Your task to perform on an android device: Open eBay Image 0: 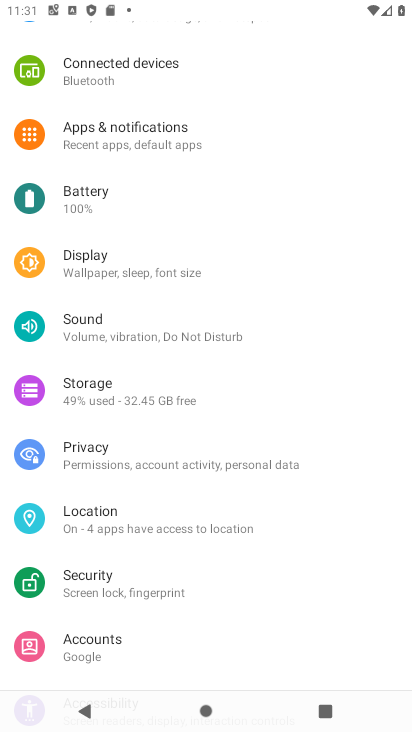
Step 0: press home button
Your task to perform on an android device: Open eBay Image 1: 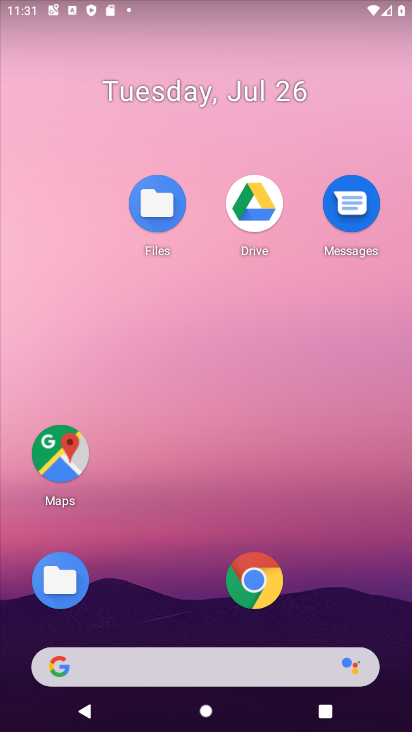
Step 1: click (175, 671)
Your task to perform on an android device: Open eBay Image 2: 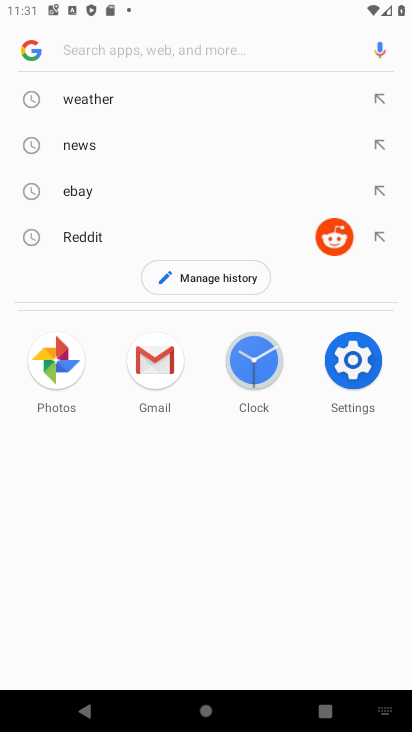
Step 2: click (97, 203)
Your task to perform on an android device: Open eBay Image 3: 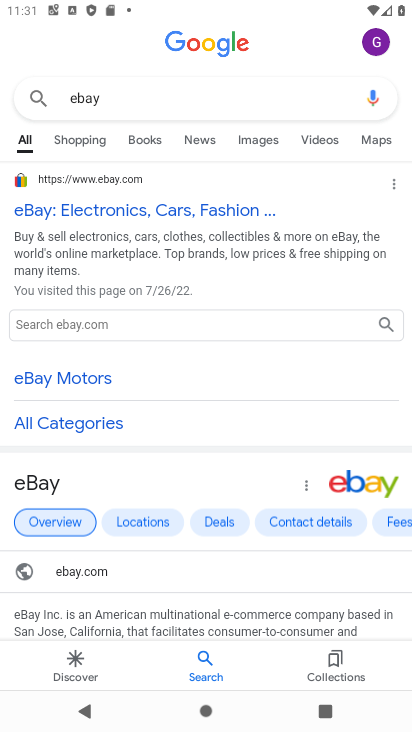
Step 3: click (86, 478)
Your task to perform on an android device: Open eBay Image 4: 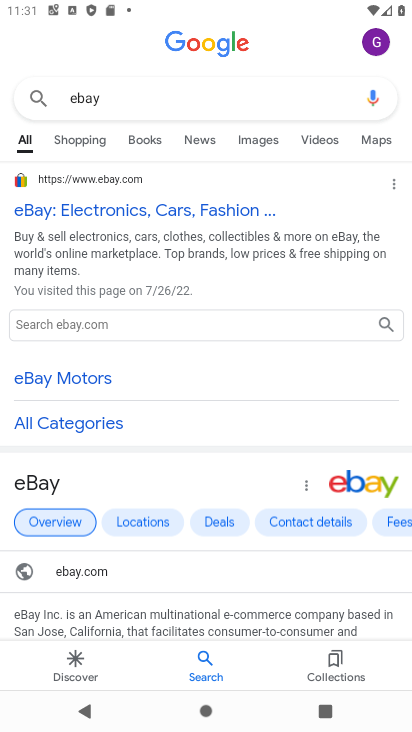
Step 4: click (123, 210)
Your task to perform on an android device: Open eBay Image 5: 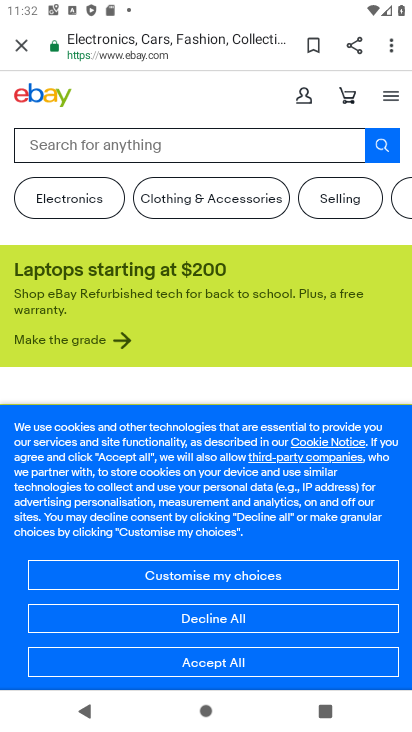
Step 5: task complete